Your task to perform on an android device: change keyboard looks Image 0: 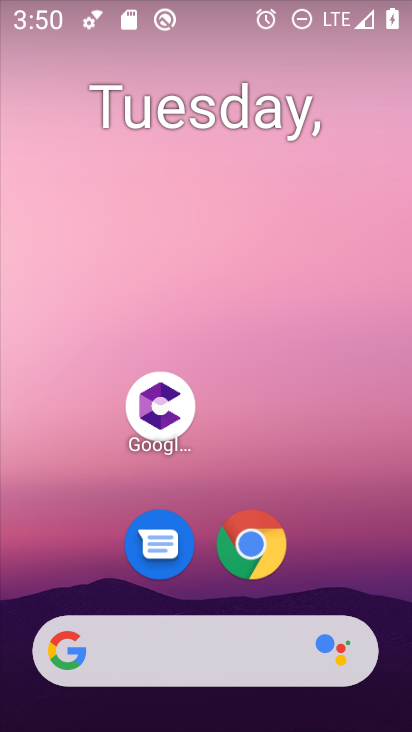
Step 0: drag from (342, 571) to (345, 184)
Your task to perform on an android device: change keyboard looks Image 1: 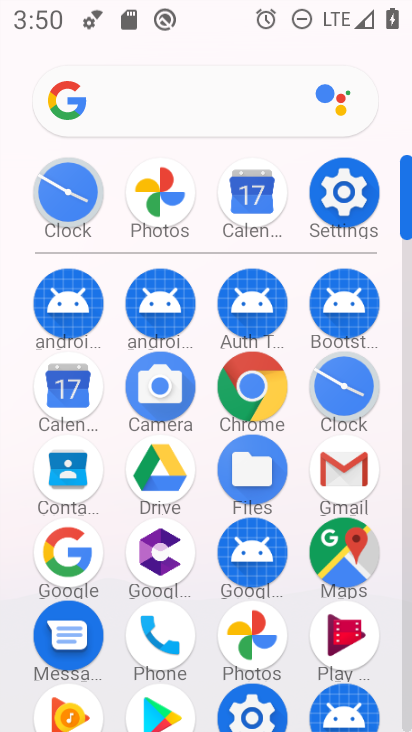
Step 1: click (354, 201)
Your task to perform on an android device: change keyboard looks Image 2: 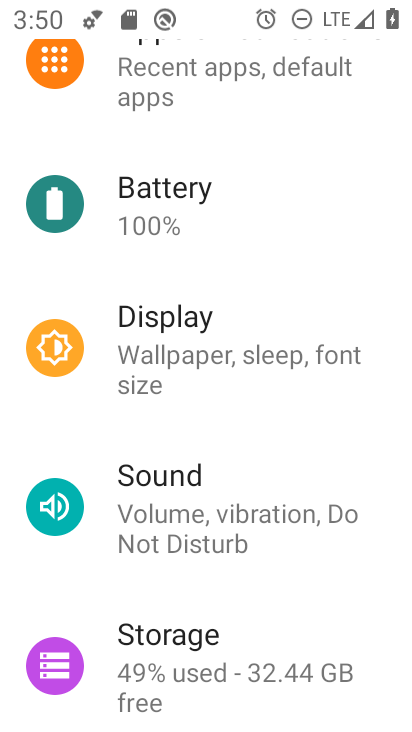
Step 2: drag from (300, 452) to (286, 318)
Your task to perform on an android device: change keyboard looks Image 3: 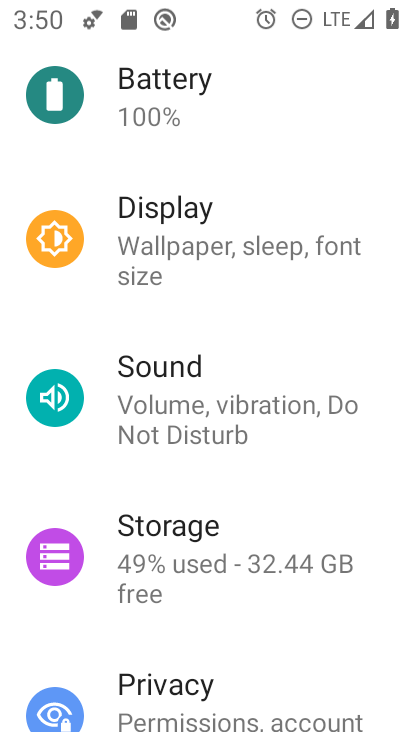
Step 3: drag from (263, 483) to (299, 345)
Your task to perform on an android device: change keyboard looks Image 4: 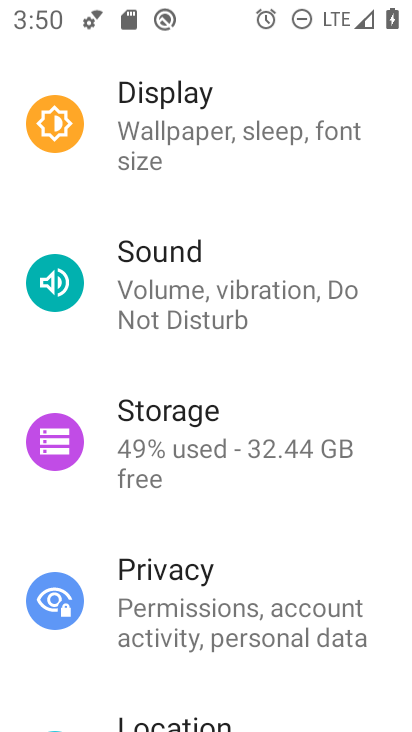
Step 4: drag from (294, 529) to (318, 399)
Your task to perform on an android device: change keyboard looks Image 5: 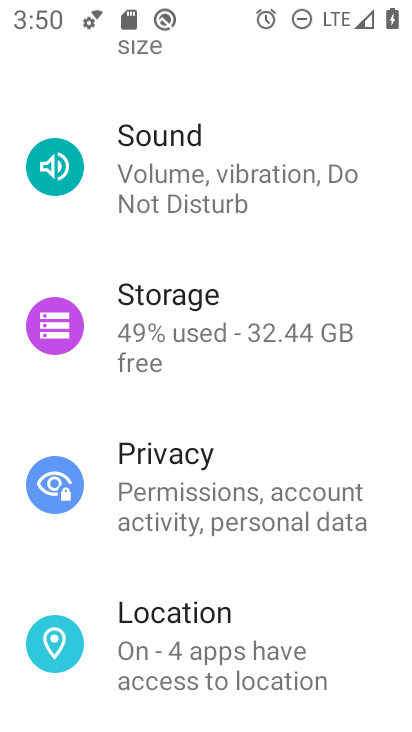
Step 5: drag from (287, 582) to (315, 414)
Your task to perform on an android device: change keyboard looks Image 6: 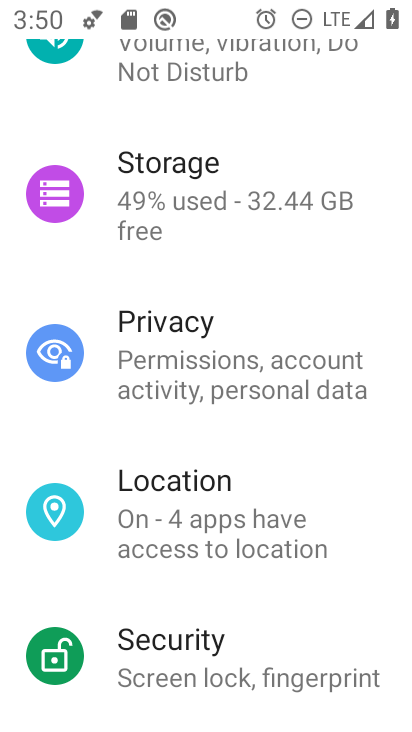
Step 6: drag from (319, 603) to (310, 442)
Your task to perform on an android device: change keyboard looks Image 7: 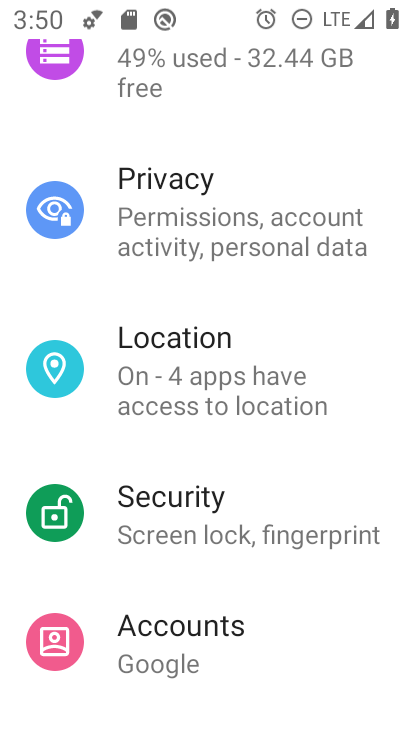
Step 7: drag from (305, 606) to (311, 476)
Your task to perform on an android device: change keyboard looks Image 8: 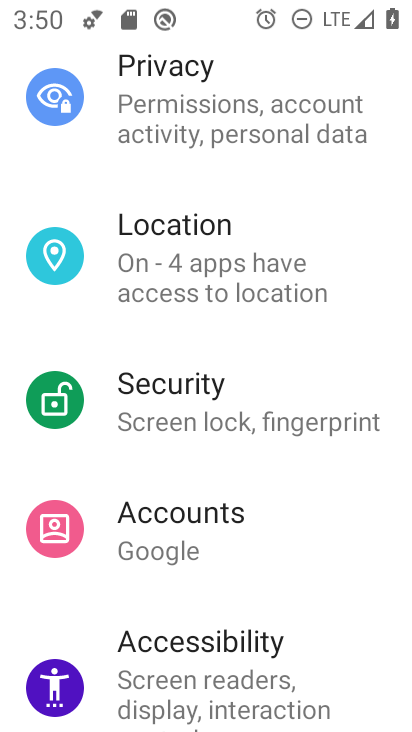
Step 8: drag from (314, 629) to (326, 505)
Your task to perform on an android device: change keyboard looks Image 9: 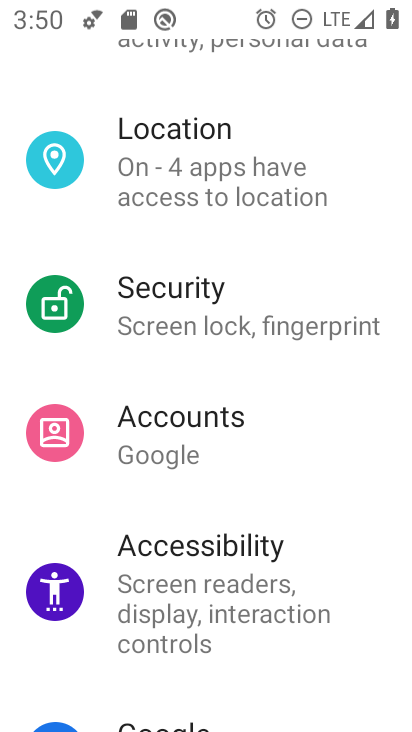
Step 9: drag from (323, 652) to (308, 509)
Your task to perform on an android device: change keyboard looks Image 10: 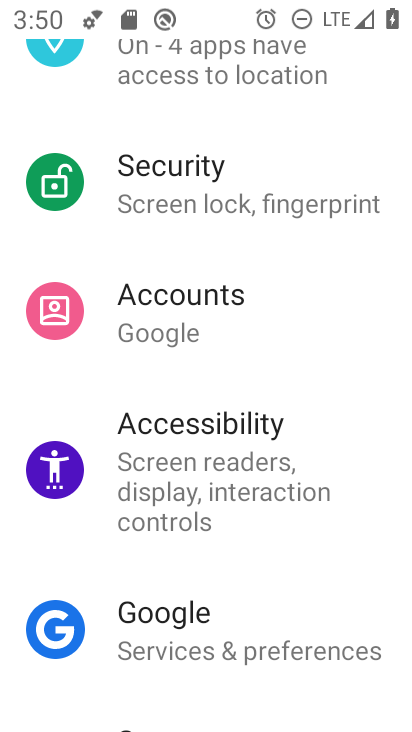
Step 10: drag from (313, 613) to (318, 515)
Your task to perform on an android device: change keyboard looks Image 11: 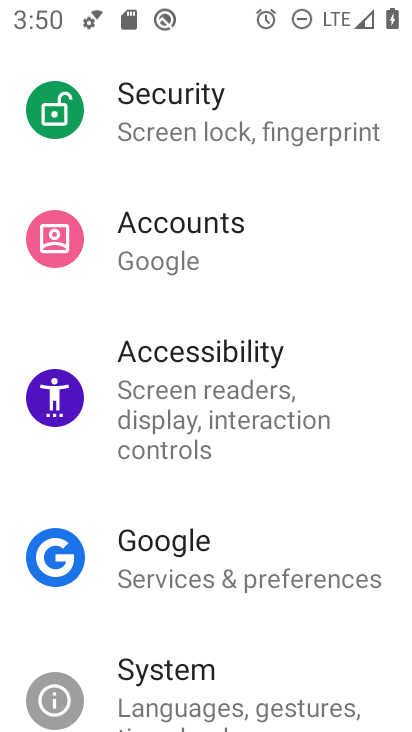
Step 11: drag from (295, 625) to (293, 474)
Your task to perform on an android device: change keyboard looks Image 12: 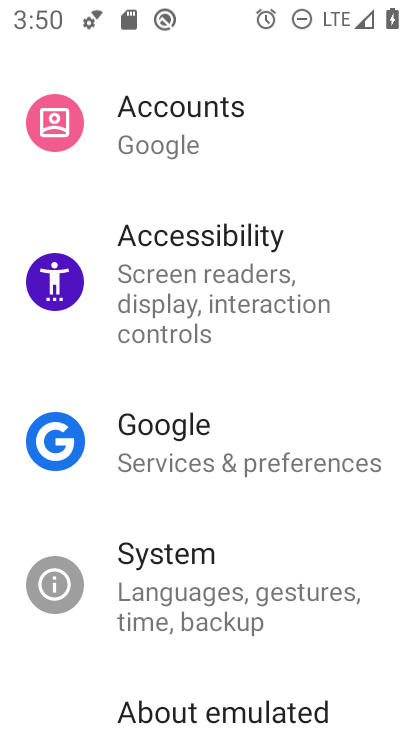
Step 12: drag from (290, 649) to (303, 509)
Your task to perform on an android device: change keyboard looks Image 13: 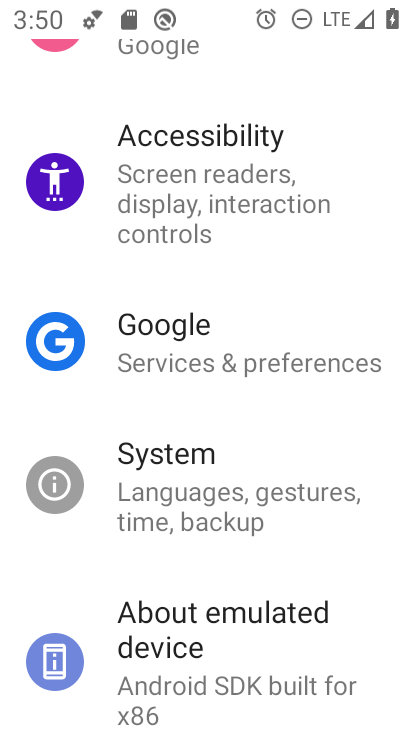
Step 13: drag from (275, 642) to (291, 541)
Your task to perform on an android device: change keyboard looks Image 14: 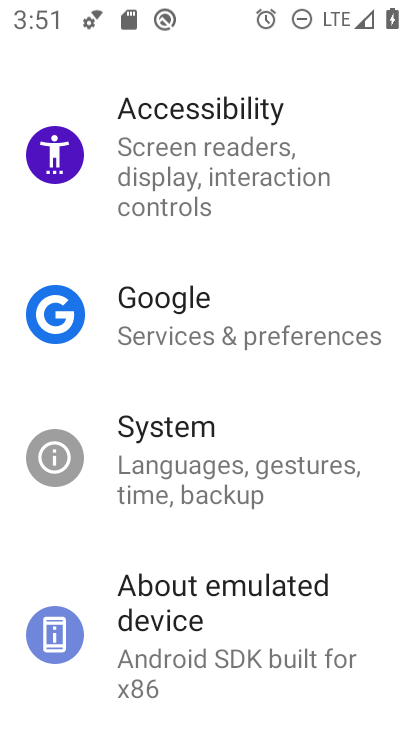
Step 14: click (251, 497)
Your task to perform on an android device: change keyboard looks Image 15: 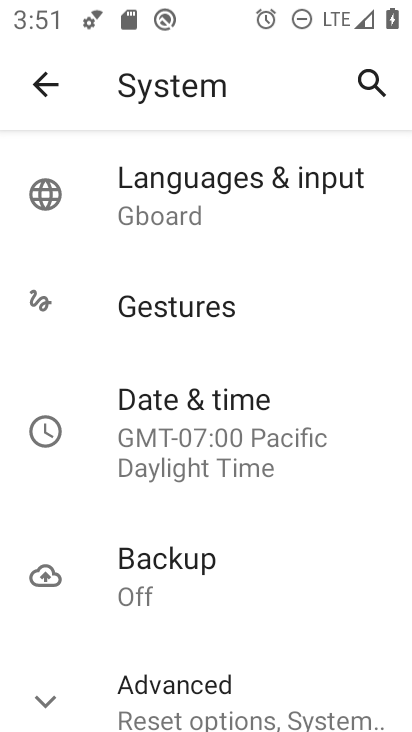
Step 15: click (217, 199)
Your task to perform on an android device: change keyboard looks Image 16: 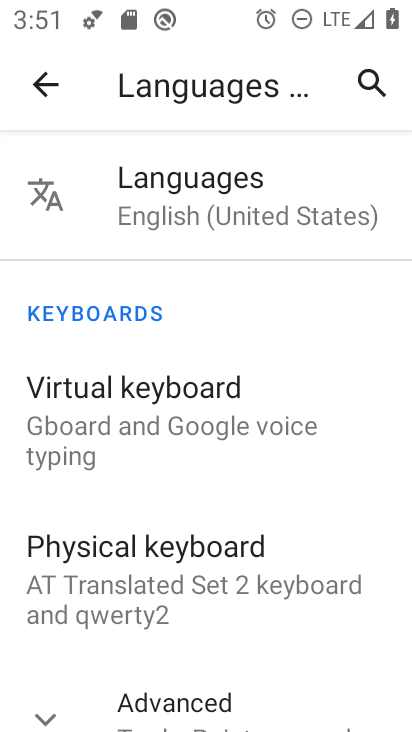
Step 16: click (252, 442)
Your task to perform on an android device: change keyboard looks Image 17: 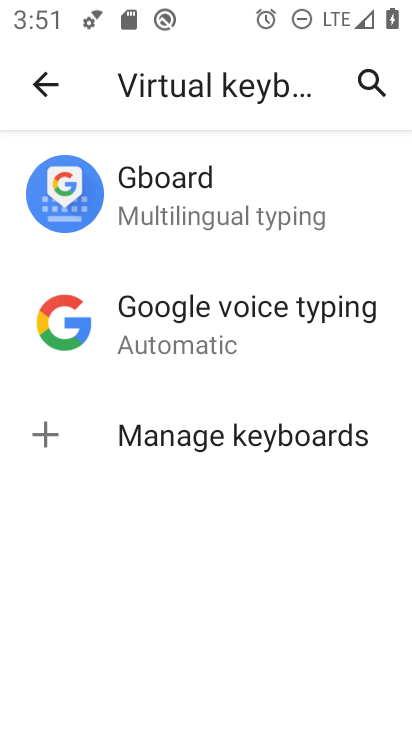
Step 17: click (211, 196)
Your task to perform on an android device: change keyboard looks Image 18: 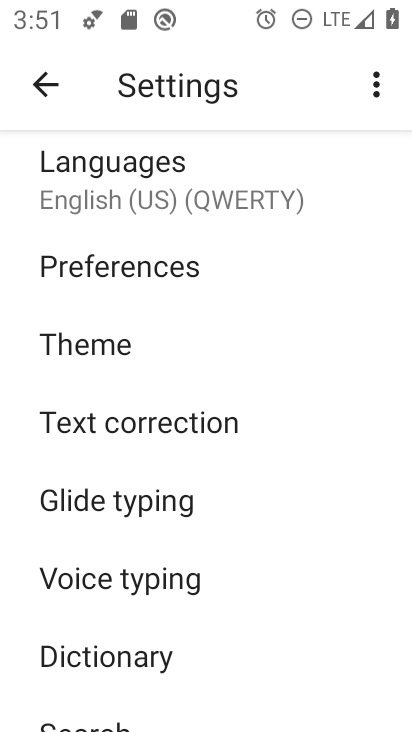
Step 18: click (157, 359)
Your task to perform on an android device: change keyboard looks Image 19: 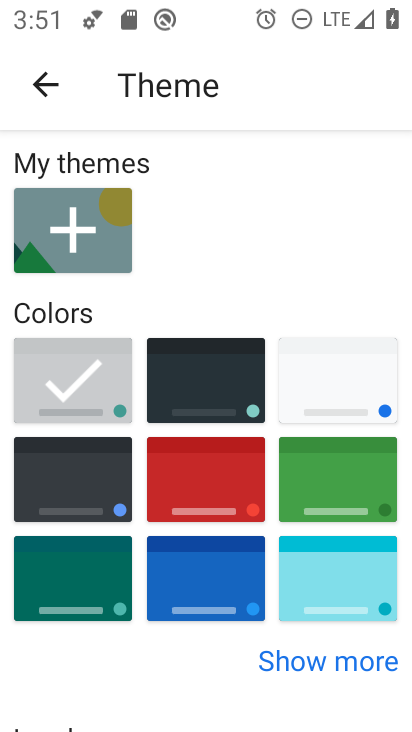
Step 19: click (194, 487)
Your task to perform on an android device: change keyboard looks Image 20: 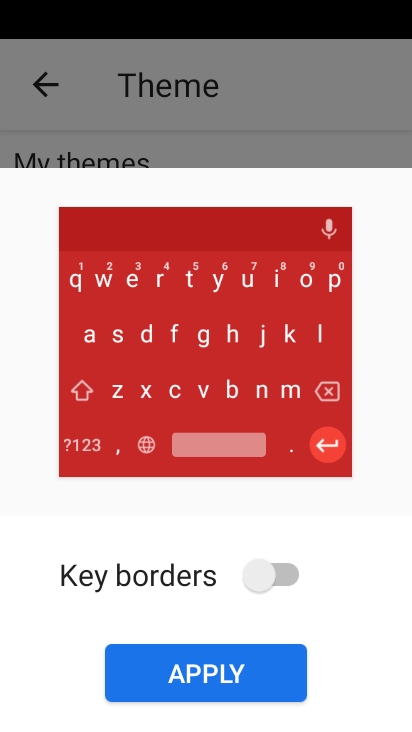
Step 20: click (215, 665)
Your task to perform on an android device: change keyboard looks Image 21: 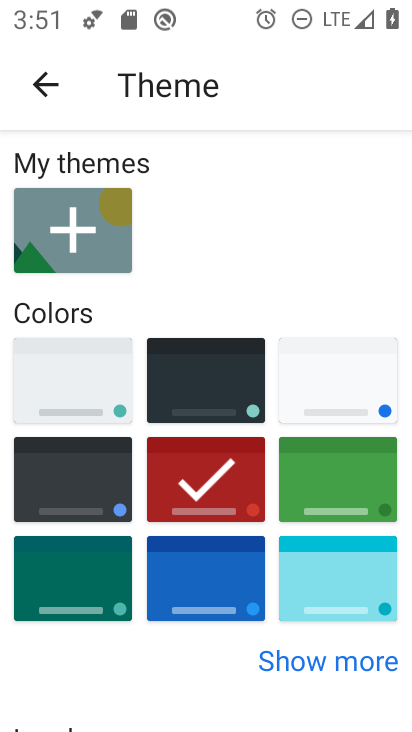
Step 21: task complete